Your task to perform on an android device: Open battery settings Image 0: 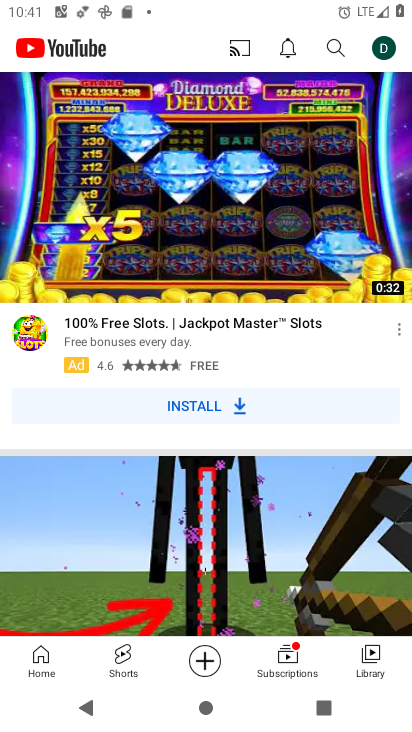
Step 0: press home button
Your task to perform on an android device: Open battery settings Image 1: 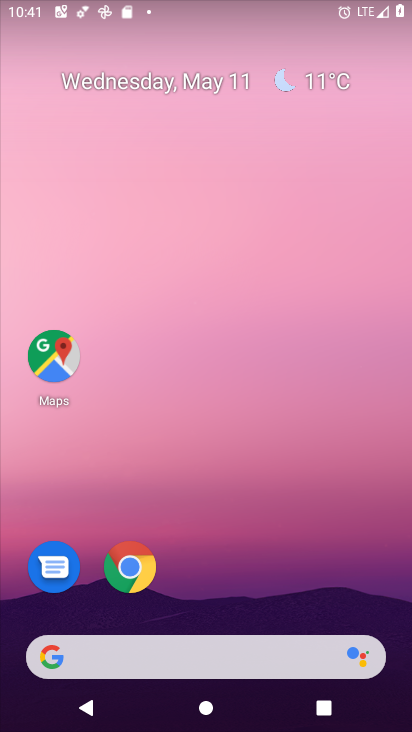
Step 1: drag from (296, 557) to (234, 118)
Your task to perform on an android device: Open battery settings Image 2: 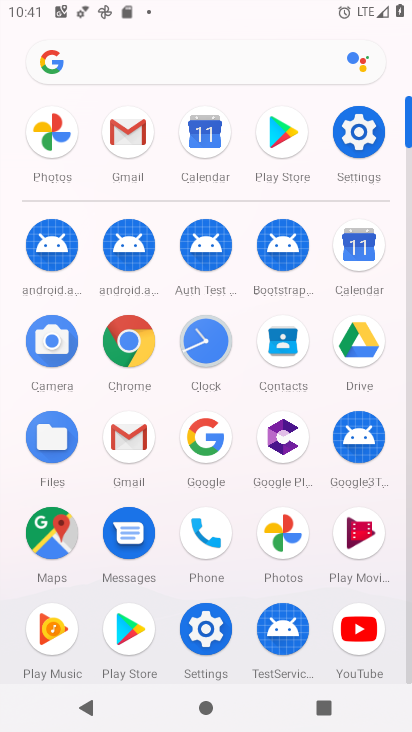
Step 2: click (350, 133)
Your task to perform on an android device: Open battery settings Image 3: 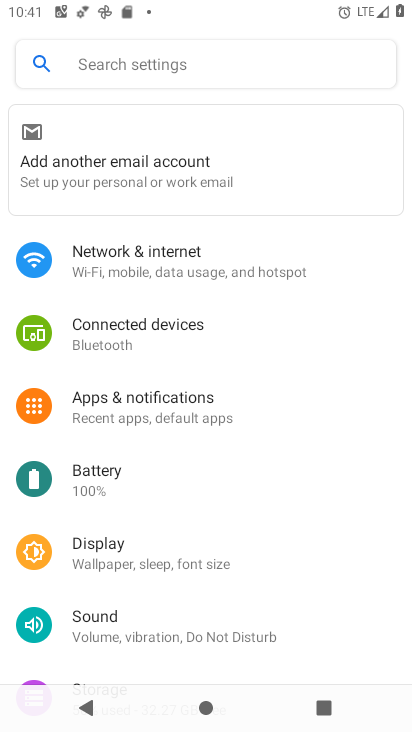
Step 3: click (193, 472)
Your task to perform on an android device: Open battery settings Image 4: 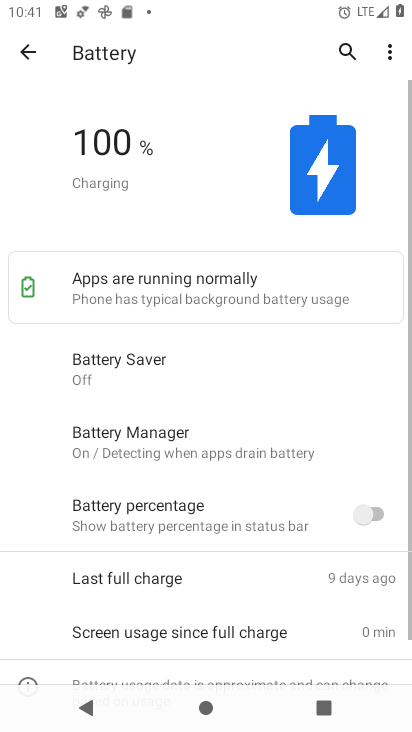
Step 4: task complete